Your task to perform on an android device: Go to Yahoo.com Image 0: 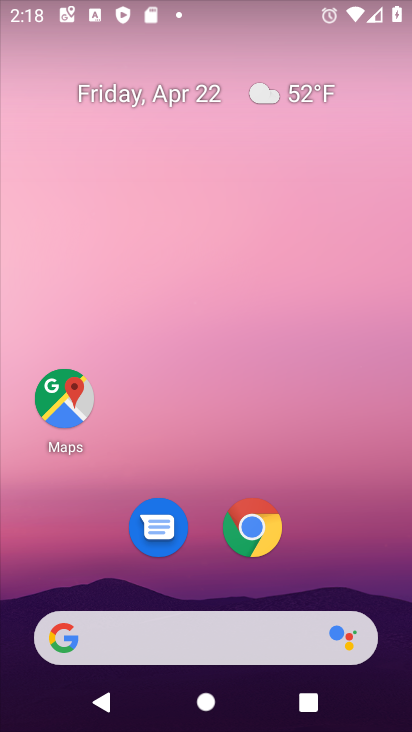
Step 0: drag from (357, 531) to (254, 100)
Your task to perform on an android device: Go to Yahoo.com Image 1: 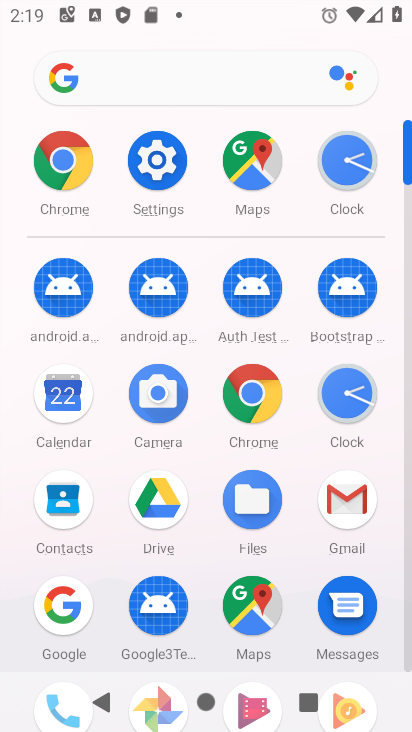
Step 1: click (50, 167)
Your task to perform on an android device: Go to Yahoo.com Image 2: 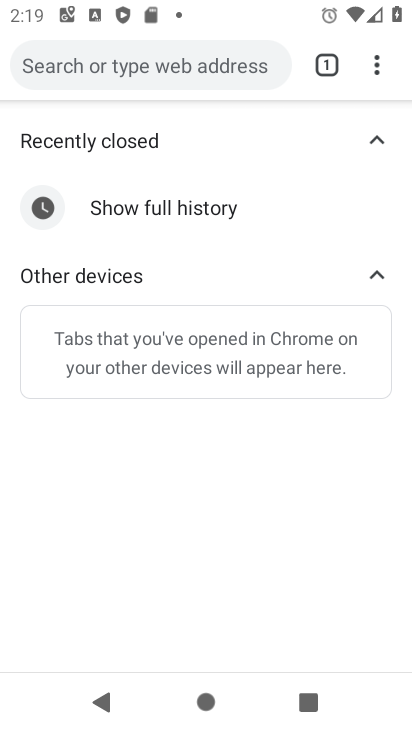
Step 2: drag from (380, 68) to (173, 142)
Your task to perform on an android device: Go to Yahoo.com Image 3: 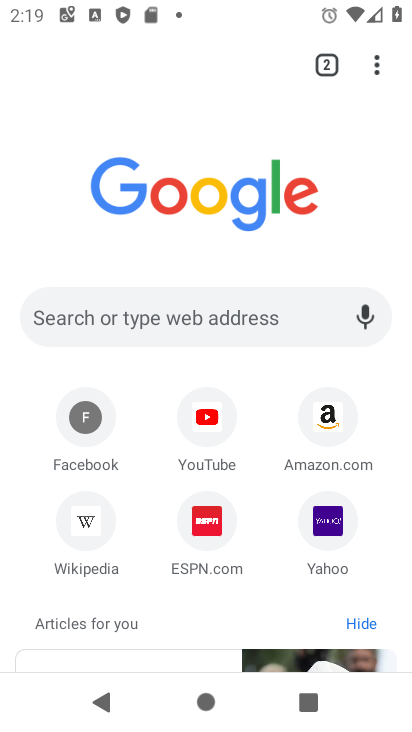
Step 3: click (301, 521)
Your task to perform on an android device: Go to Yahoo.com Image 4: 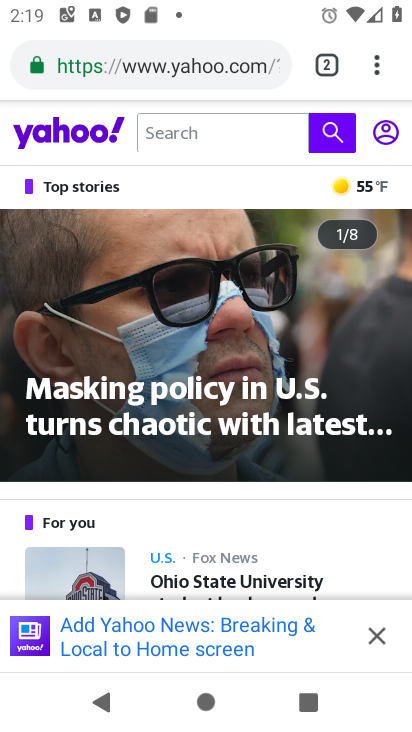
Step 4: task complete